Your task to perform on an android device: see tabs open on other devices in the chrome app Image 0: 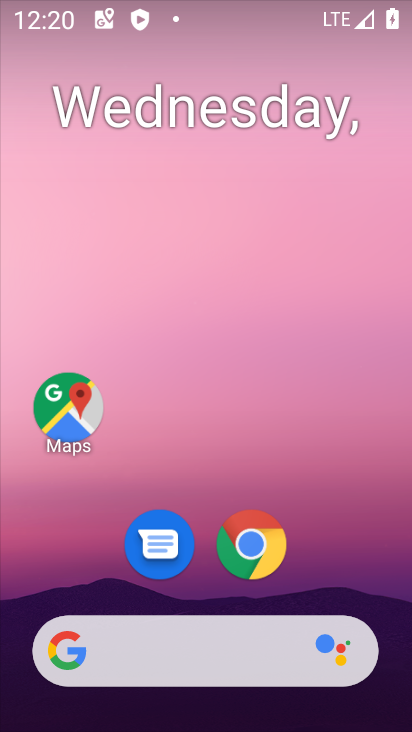
Step 0: drag from (390, 671) to (228, 28)
Your task to perform on an android device: see tabs open on other devices in the chrome app Image 1: 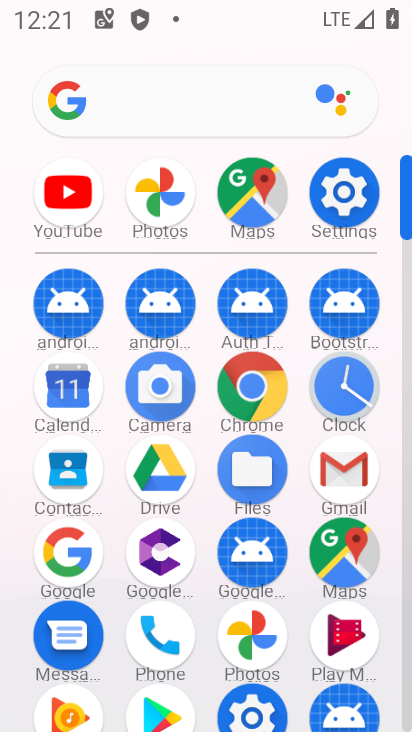
Step 1: click (267, 412)
Your task to perform on an android device: see tabs open on other devices in the chrome app Image 2: 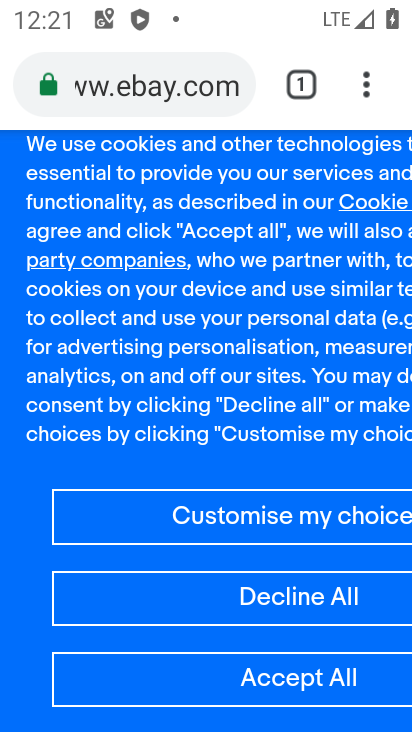
Step 2: task complete